Your task to perform on an android device: What is the recent news? Image 0: 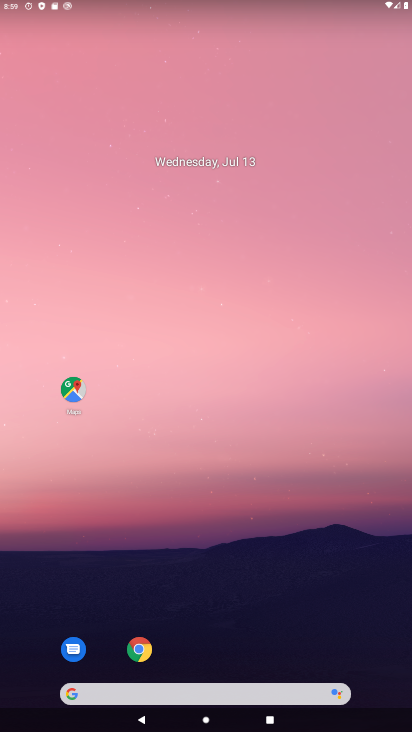
Step 0: drag from (191, 672) to (177, 9)
Your task to perform on an android device: What is the recent news? Image 1: 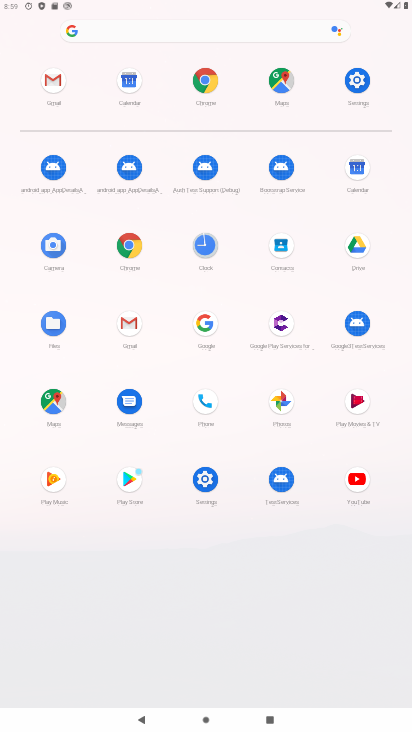
Step 1: click (120, 245)
Your task to perform on an android device: What is the recent news? Image 2: 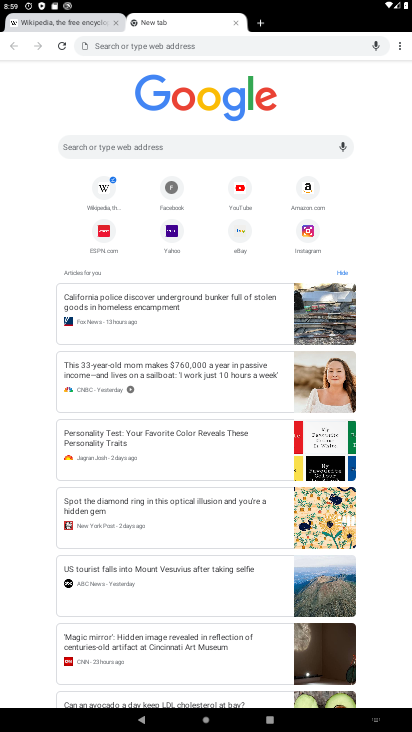
Step 2: type "recent news"
Your task to perform on an android device: What is the recent news? Image 3: 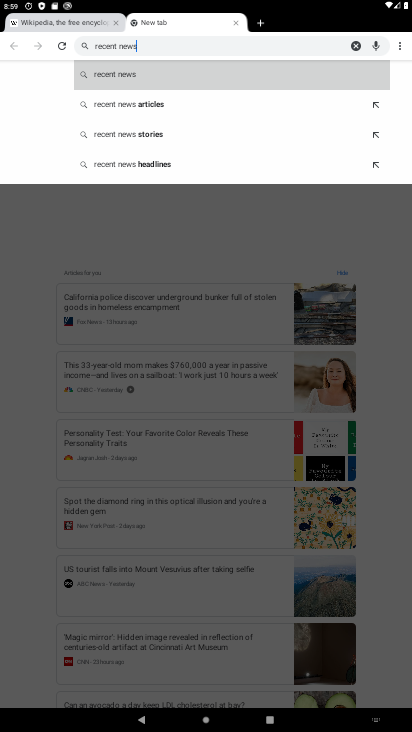
Step 3: click (142, 77)
Your task to perform on an android device: What is the recent news? Image 4: 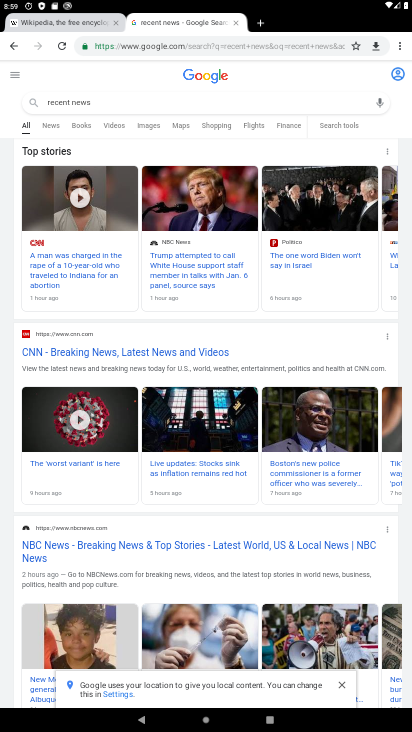
Step 4: task complete